Your task to perform on an android device: Open Maps and search for coffee Image 0: 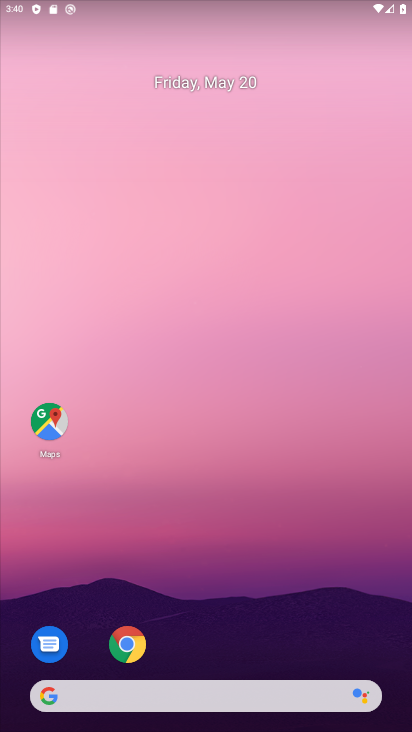
Step 0: click (67, 421)
Your task to perform on an android device: Open Maps and search for coffee Image 1: 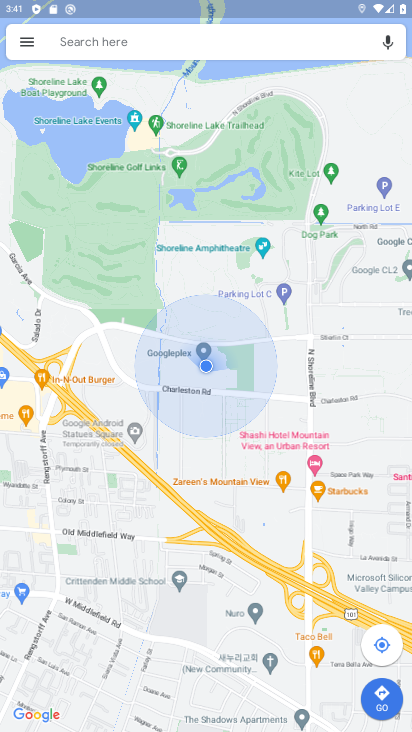
Step 1: click (122, 46)
Your task to perform on an android device: Open Maps and search for coffee Image 2: 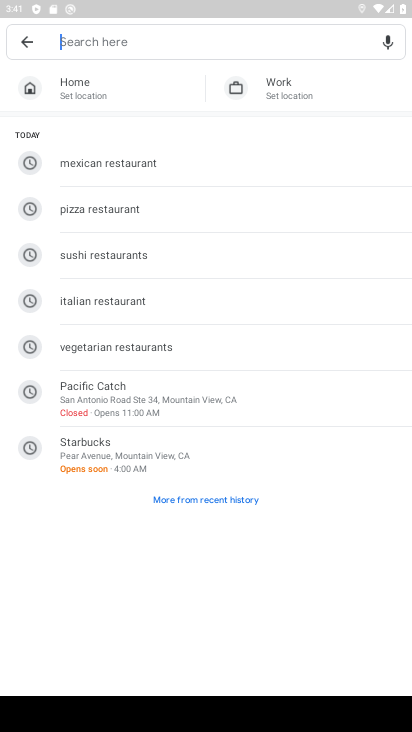
Step 2: type "coffee"
Your task to perform on an android device: Open Maps and search for coffee Image 3: 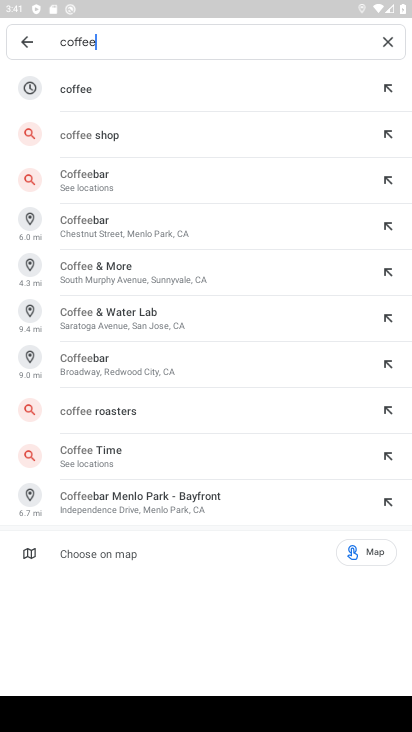
Step 3: click (103, 81)
Your task to perform on an android device: Open Maps and search for coffee Image 4: 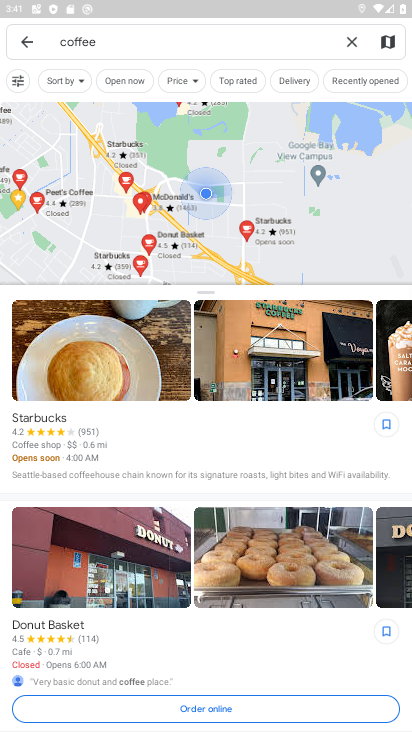
Step 4: task complete